Your task to perform on an android device: read, delete, or share a saved page in the chrome app Image 0: 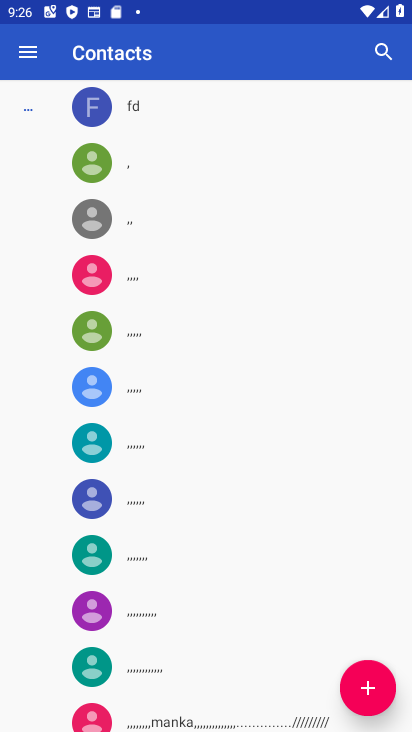
Step 0: press home button
Your task to perform on an android device: read, delete, or share a saved page in the chrome app Image 1: 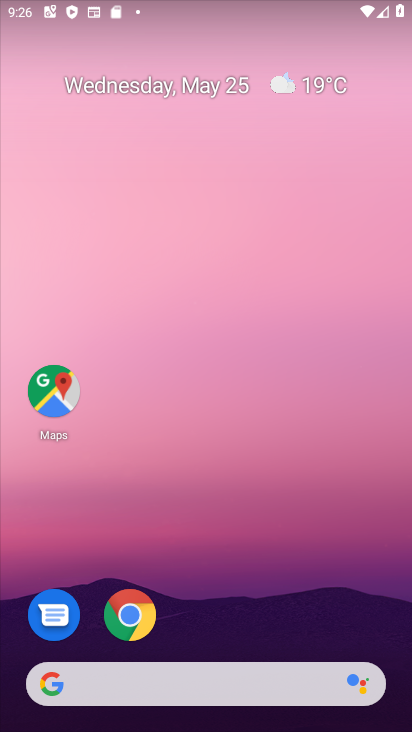
Step 1: drag from (256, 708) to (225, 146)
Your task to perform on an android device: read, delete, or share a saved page in the chrome app Image 2: 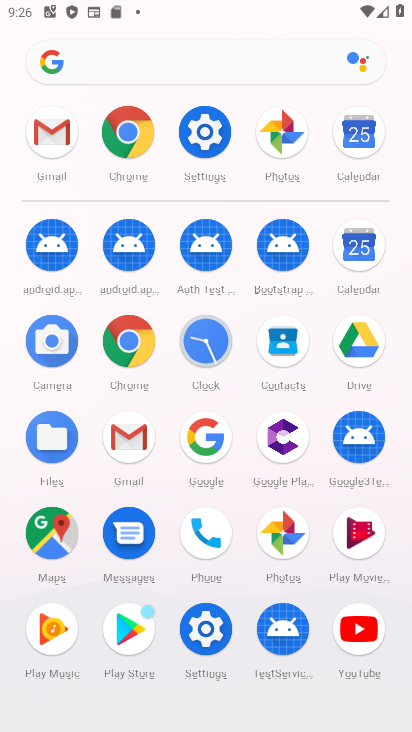
Step 2: click (129, 138)
Your task to perform on an android device: read, delete, or share a saved page in the chrome app Image 3: 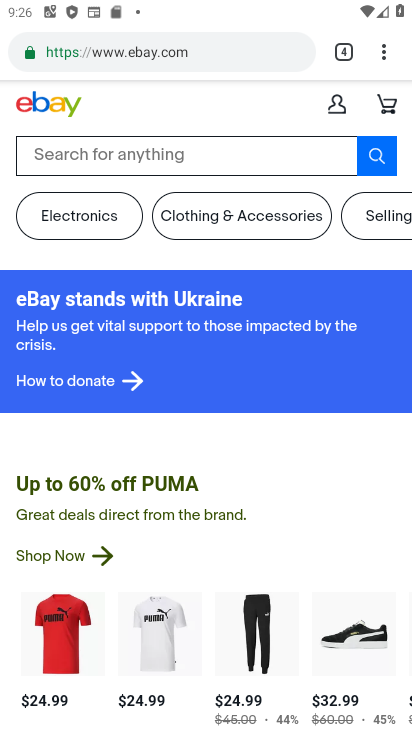
Step 3: click (384, 61)
Your task to perform on an android device: read, delete, or share a saved page in the chrome app Image 4: 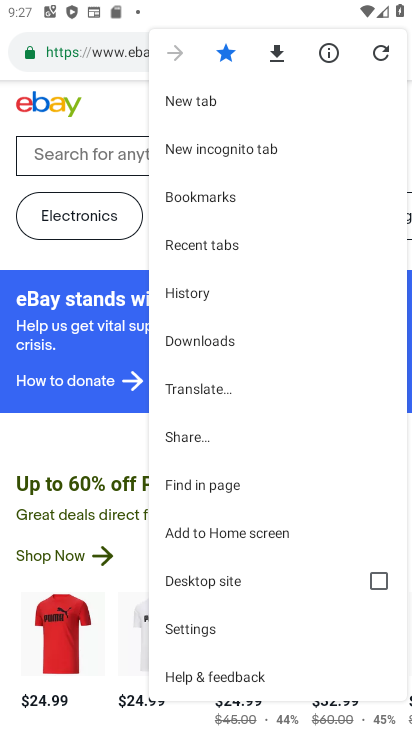
Step 4: click (220, 430)
Your task to perform on an android device: read, delete, or share a saved page in the chrome app Image 5: 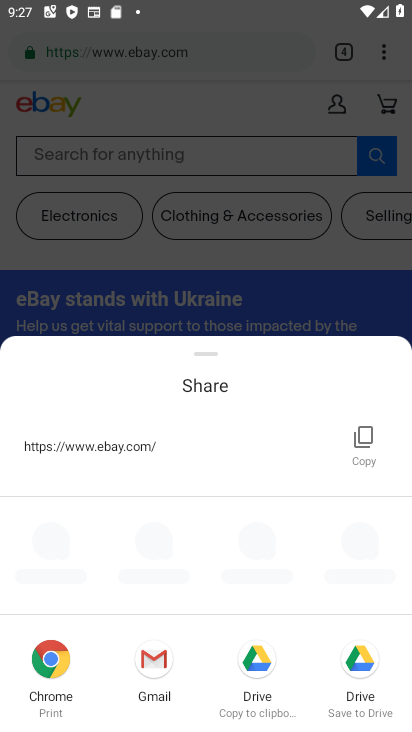
Step 5: task complete